Your task to perform on an android device: check battery use Image 0: 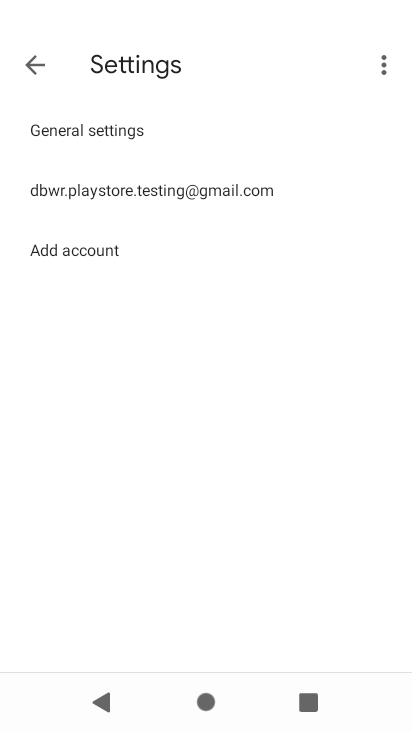
Step 0: press home button
Your task to perform on an android device: check battery use Image 1: 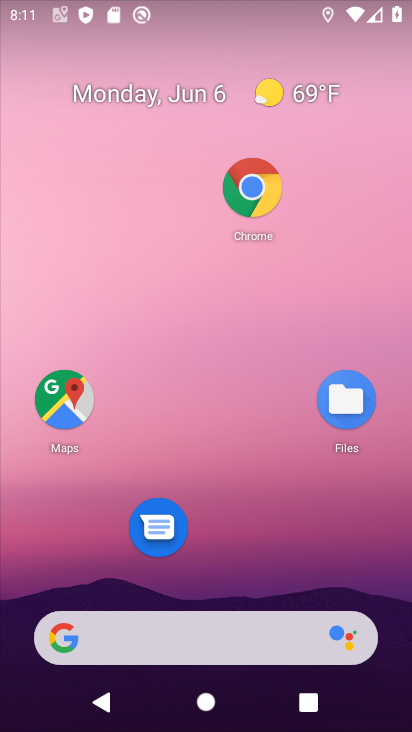
Step 1: drag from (231, 518) to (193, 27)
Your task to perform on an android device: check battery use Image 2: 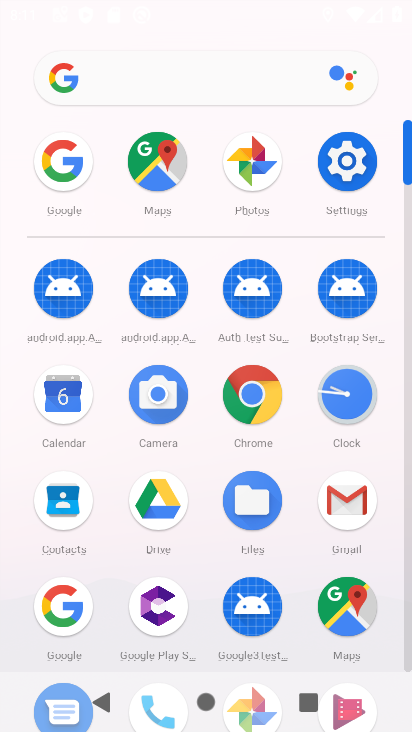
Step 2: click (350, 153)
Your task to perform on an android device: check battery use Image 3: 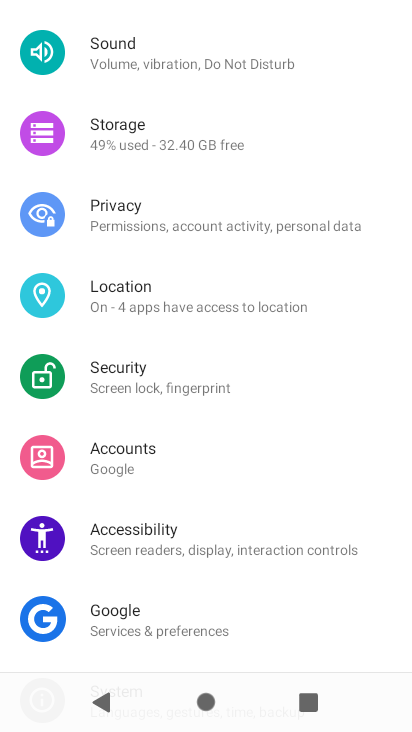
Step 3: drag from (221, 356) to (278, 566)
Your task to perform on an android device: check battery use Image 4: 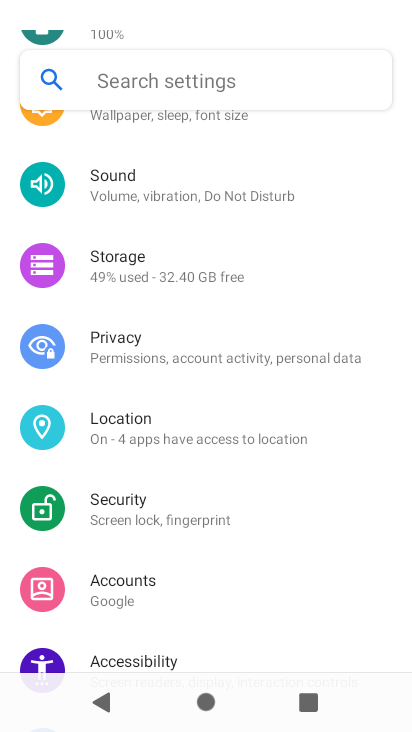
Step 4: drag from (167, 162) to (243, 467)
Your task to perform on an android device: check battery use Image 5: 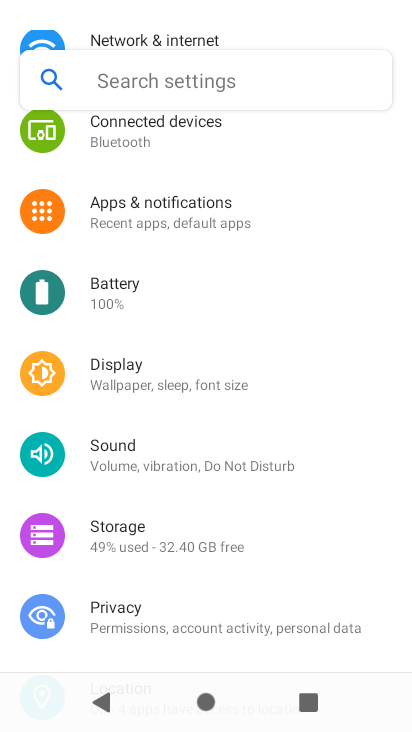
Step 5: click (126, 287)
Your task to perform on an android device: check battery use Image 6: 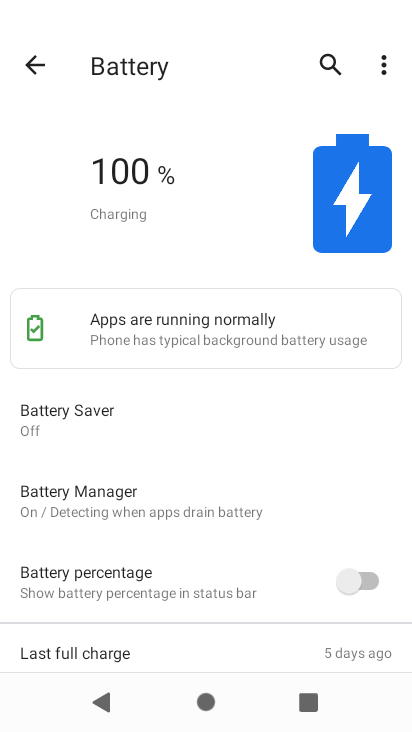
Step 6: click (381, 63)
Your task to perform on an android device: check battery use Image 7: 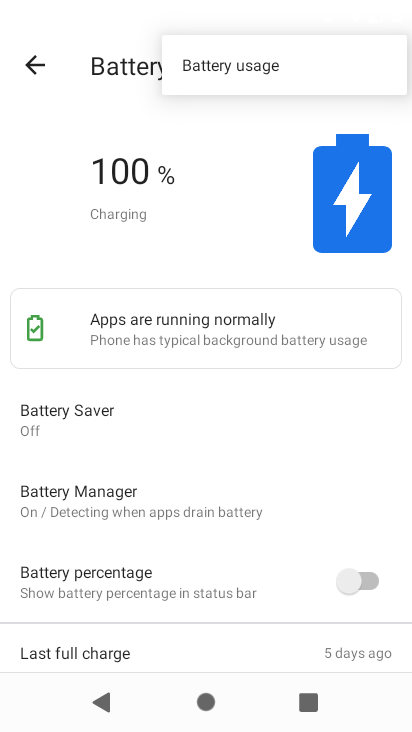
Step 7: click (307, 59)
Your task to perform on an android device: check battery use Image 8: 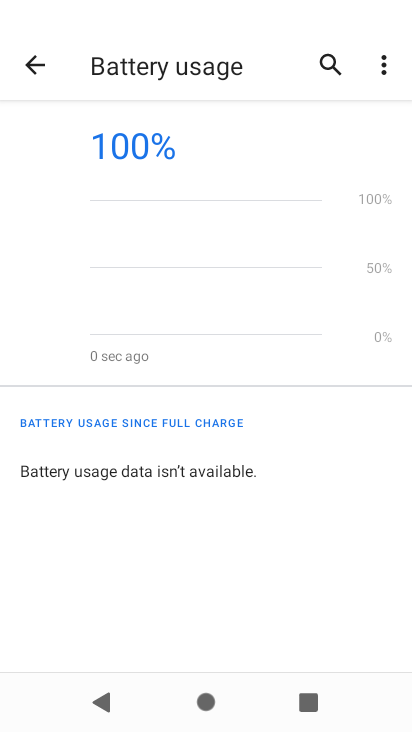
Step 8: task complete